Your task to perform on an android device: toggle javascript in the chrome app Image 0: 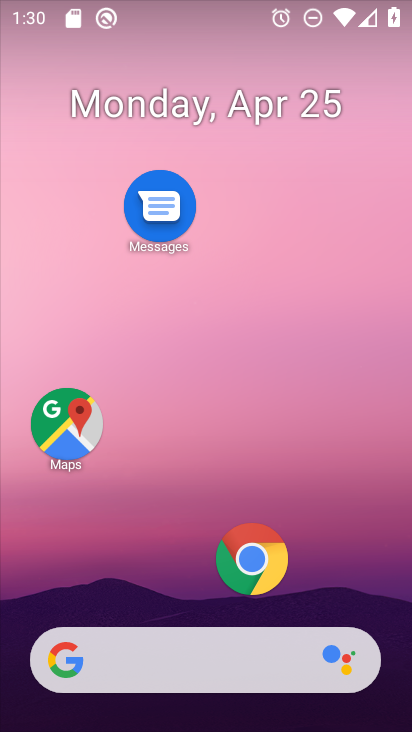
Step 0: drag from (184, 446) to (169, 157)
Your task to perform on an android device: toggle javascript in the chrome app Image 1: 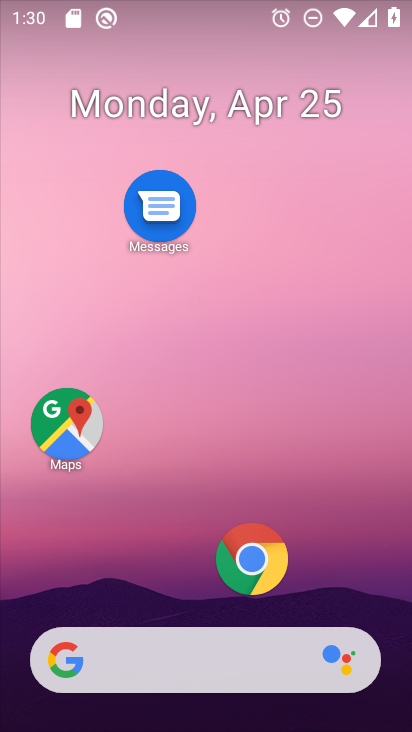
Step 1: click (262, 562)
Your task to perform on an android device: toggle javascript in the chrome app Image 2: 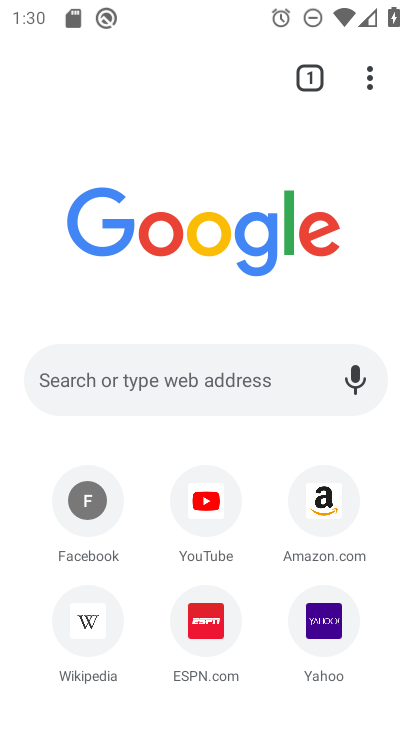
Step 2: click (362, 78)
Your task to perform on an android device: toggle javascript in the chrome app Image 3: 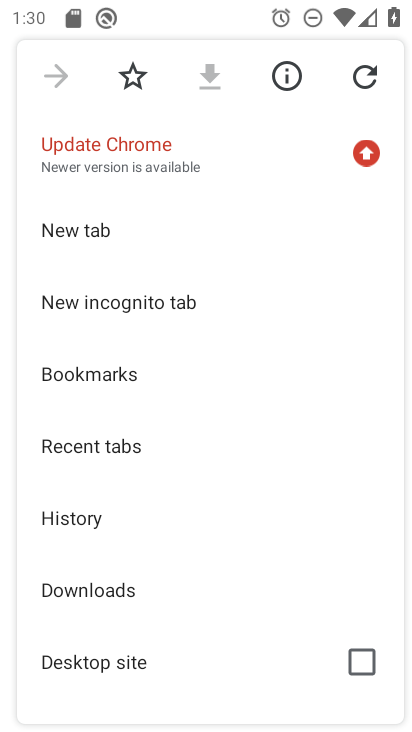
Step 3: drag from (180, 681) to (238, 312)
Your task to perform on an android device: toggle javascript in the chrome app Image 4: 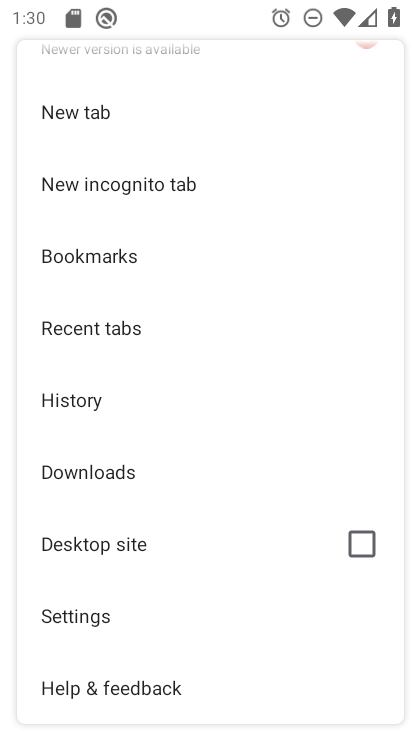
Step 4: click (72, 617)
Your task to perform on an android device: toggle javascript in the chrome app Image 5: 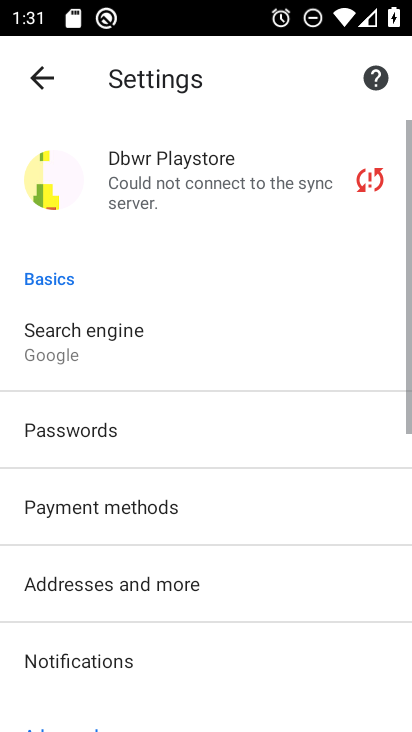
Step 5: drag from (189, 591) to (215, 272)
Your task to perform on an android device: toggle javascript in the chrome app Image 6: 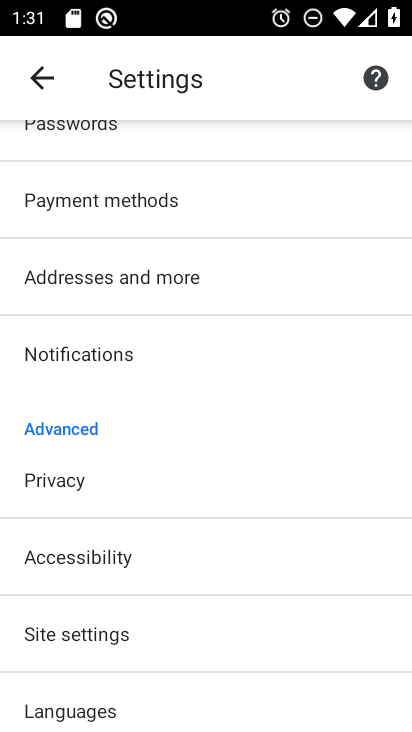
Step 6: click (63, 636)
Your task to perform on an android device: toggle javascript in the chrome app Image 7: 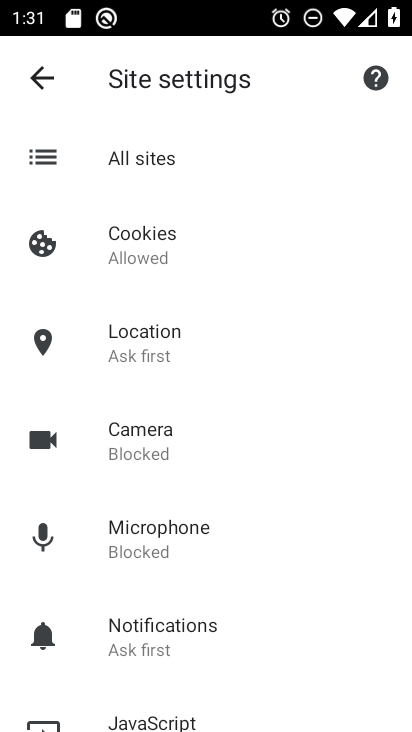
Step 7: drag from (184, 586) to (213, 285)
Your task to perform on an android device: toggle javascript in the chrome app Image 8: 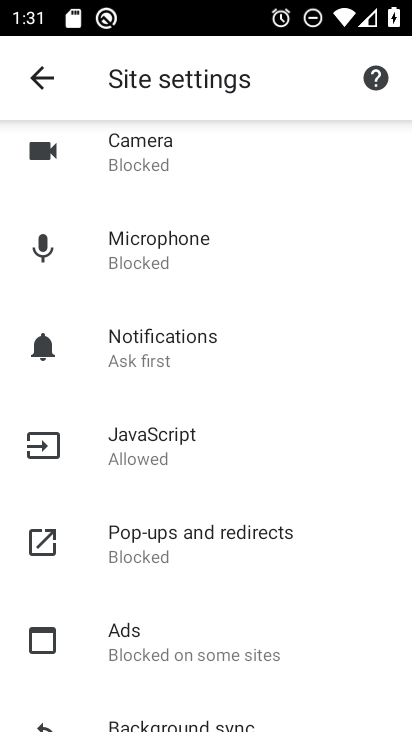
Step 8: click (199, 432)
Your task to perform on an android device: toggle javascript in the chrome app Image 9: 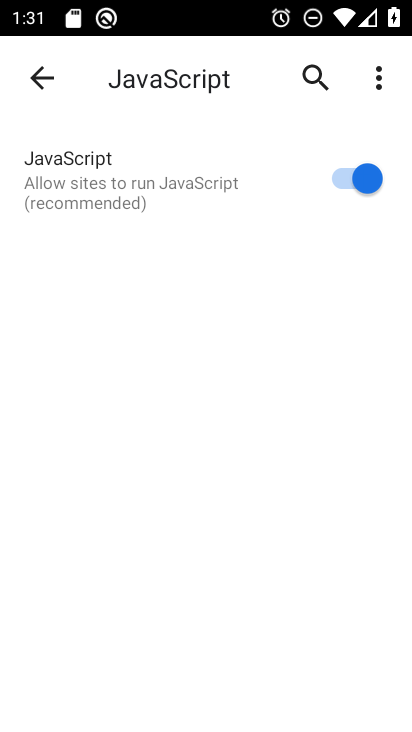
Step 9: click (341, 184)
Your task to perform on an android device: toggle javascript in the chrome app Image 10: 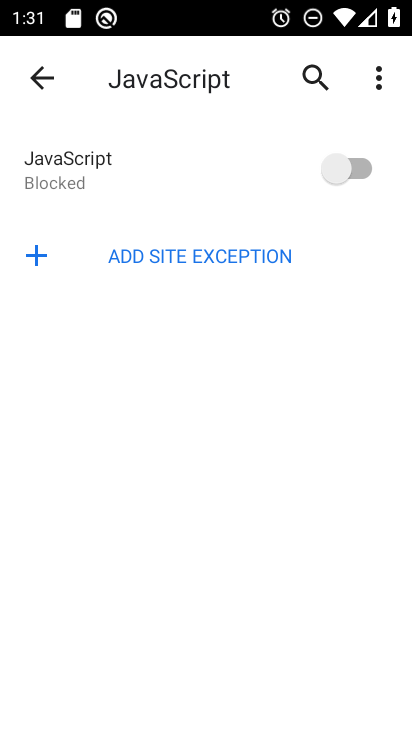
Step 10: task complete